Your task to perform on an android device: move a message to another label in the gmail app Image 0: 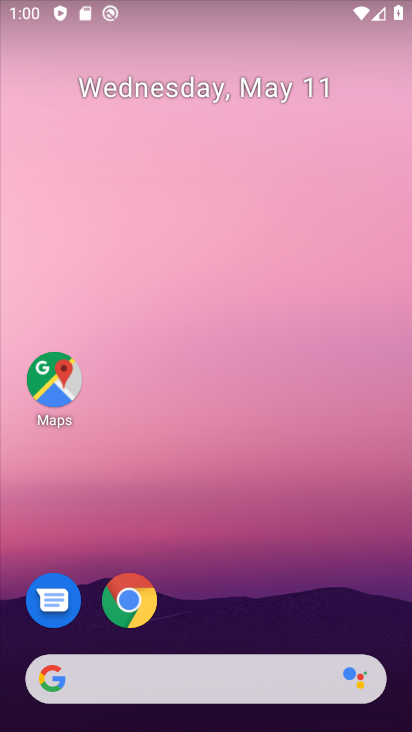
Step 0: drag from (265, 625) to (255, 206)
Your task to perform on an android device: move a message to another label in the gmail app Image 1: 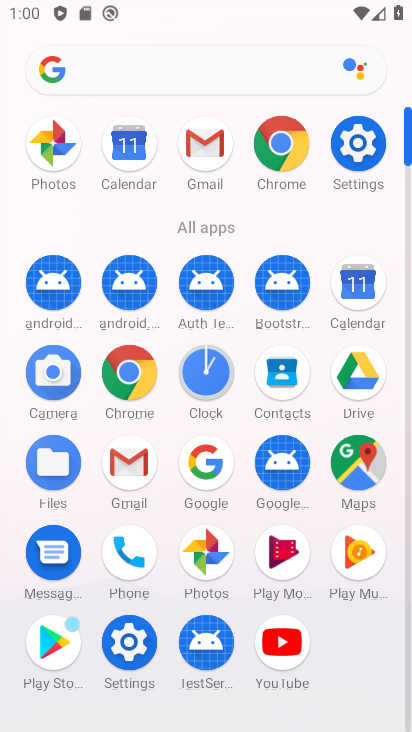
Step 1: click (197, 146)
Your task to perform on an android device: move a message to another label in the gmail app Image 2: 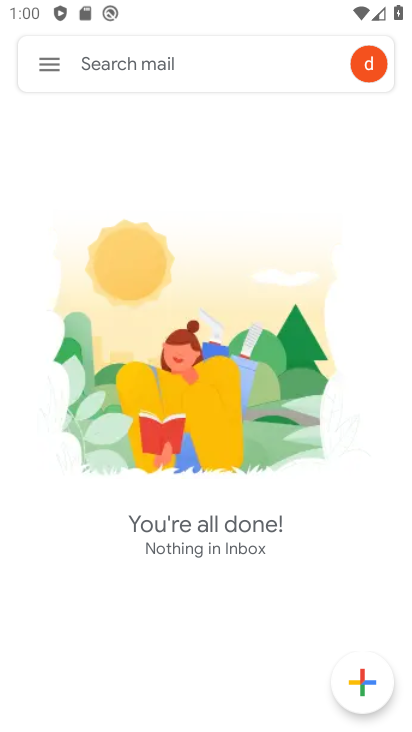
Step 2: click (53, 54)
Your task to perform on an android device: move a message to another label in the gmail app Image 3: 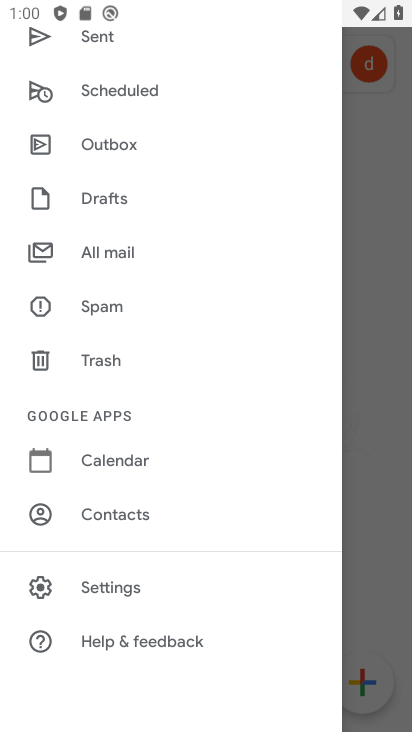
Step 3: click (118, 251)
Your task to perform on an android device: move a message to another label in the gmail app Image 4: 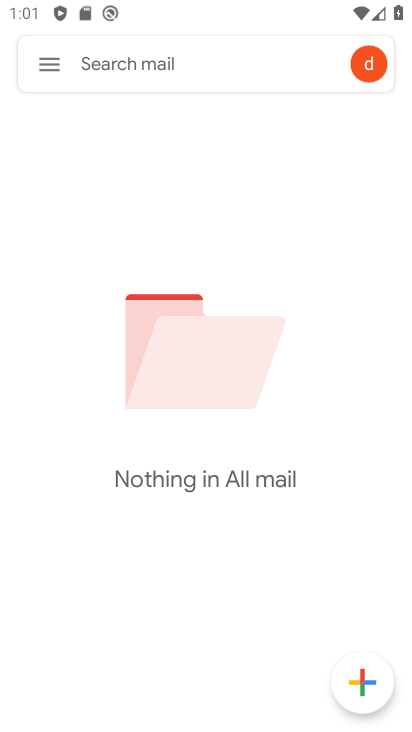
Step 4: task complete